Your task to perform on an android device: Open Reddit.com Image 0: 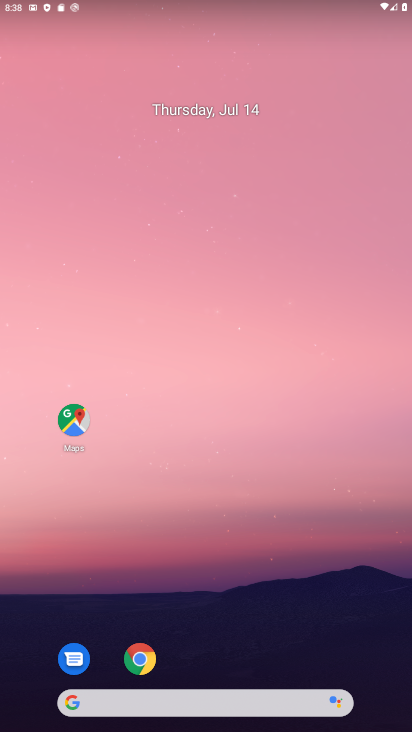
Step 0: click (71, 702)
Your task to perform on an android device: Open Reddit.com Image 1: 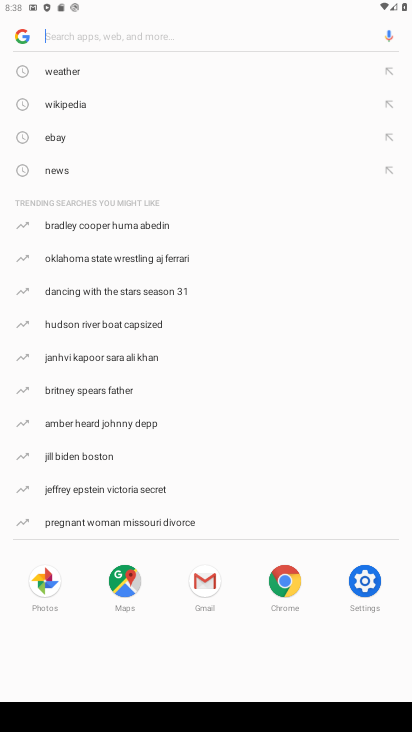
Step 1: click (86, 33)
Your task to perform on an android device: Open Reddit.com Image 2: 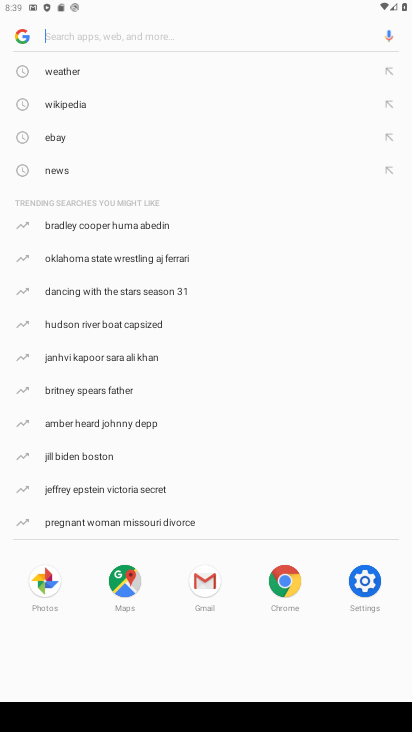
Step 2: click (88, 32)
Your task to perform on an android device: Open Reddit.com Image 3: 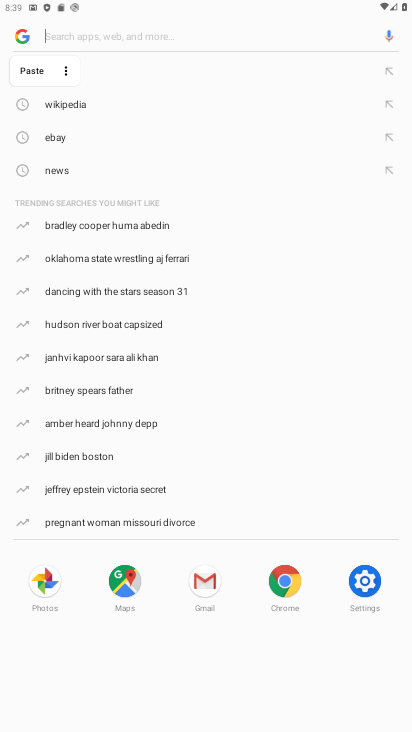
Step 3: type "Reddit.com"
Your task to perform on an android device: Open Reddit.com Image 4: 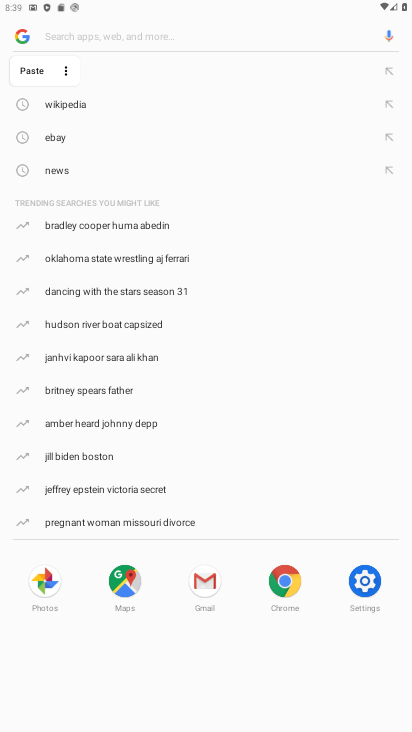
Step 4: click (81, 33)
Your task to perform on an android device: Open Reddit.com Image 5: 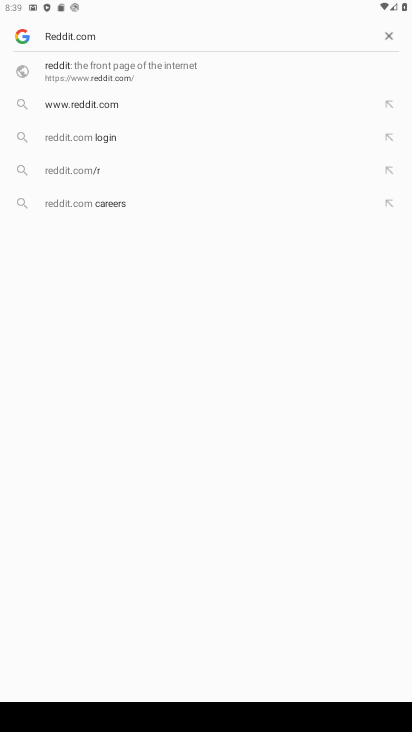
Step 5: click (98, 101)
Your task to perform on an android device: Open Reddit.com Image 6: 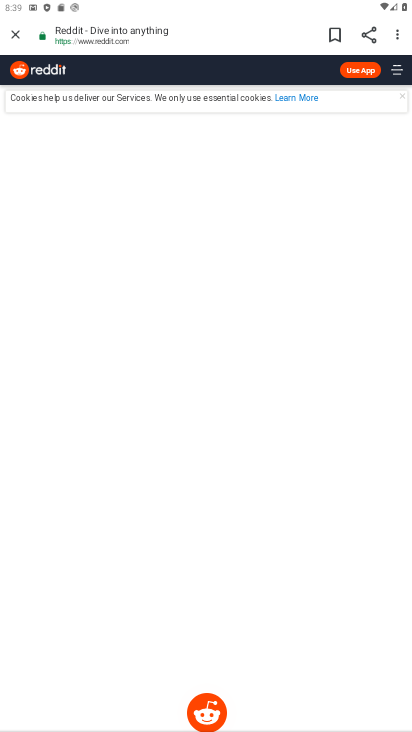
Step 6: task complete